Your task to perform on an android device: open a new tab in the chrome app Image 0: 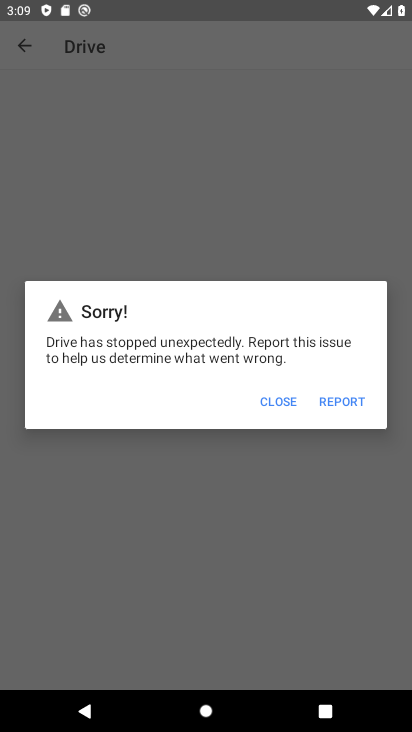
Step 0: press back button
Your task to perform on an android device: open a new tab in the chrome app Image 1: 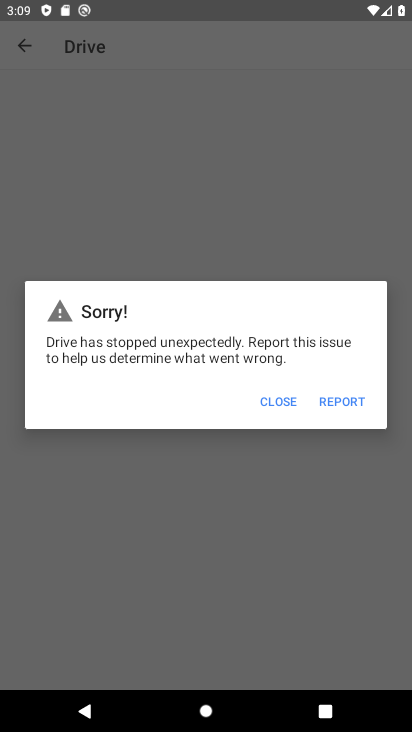
Step 1: press back button
Your task to perform on an android device: open a new tab in the chrome app Image 2: 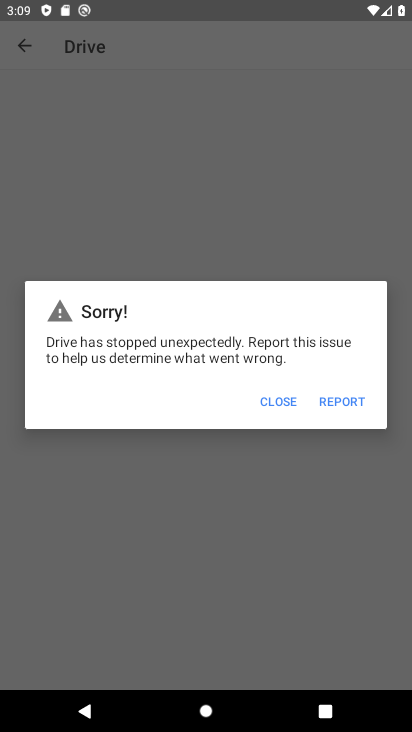
Step 2: press home button
Your task to perform on an android device: open a new tab in the chrome app Image 3: 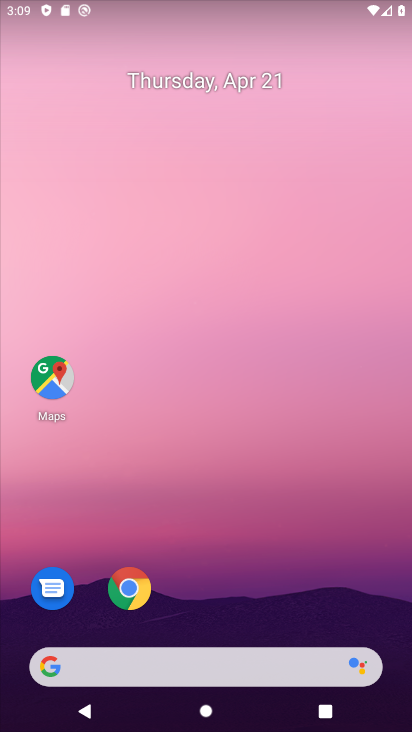
Step 3: click (123, 596)
Your task to perform on an android device: open a new tab in the chrome app Image 4: 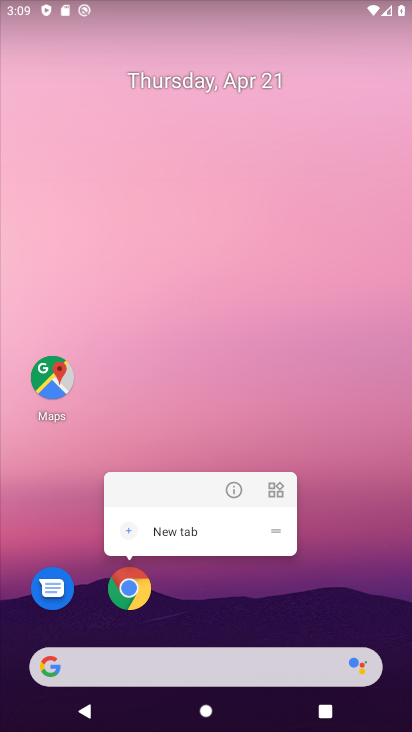
Step 4: click (123, 596)
Your task to perform on an android device: open a new tab in the chrome app Image 5: 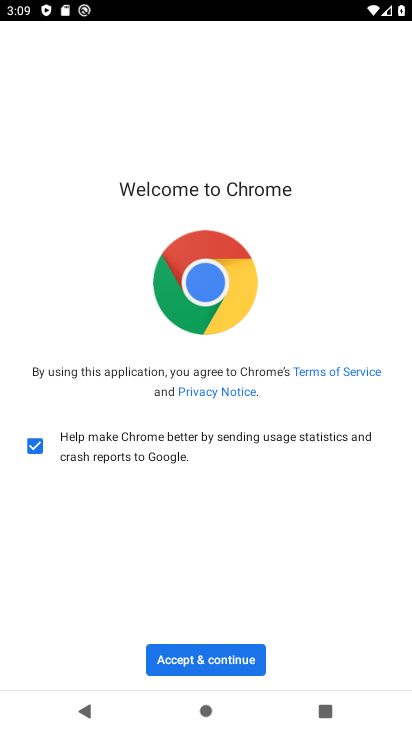
Step 5: click (180, 660)
Your task to perform on an android device: open a new tab in the chrome app Image 6: 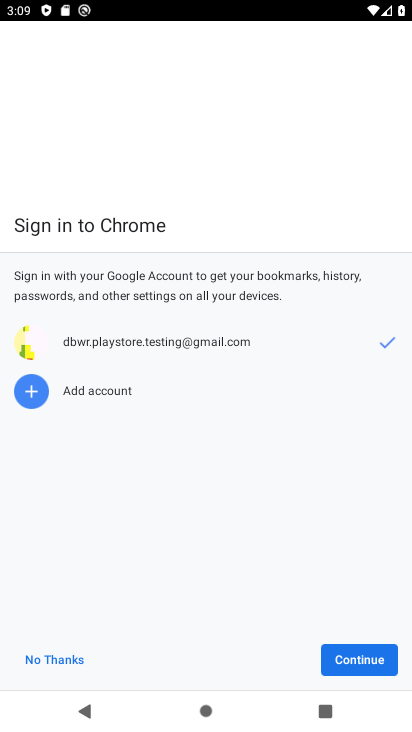
Step 6: click (344, 657)
Your task to perform on an android device: open a new tab in the chrome app Image 7: 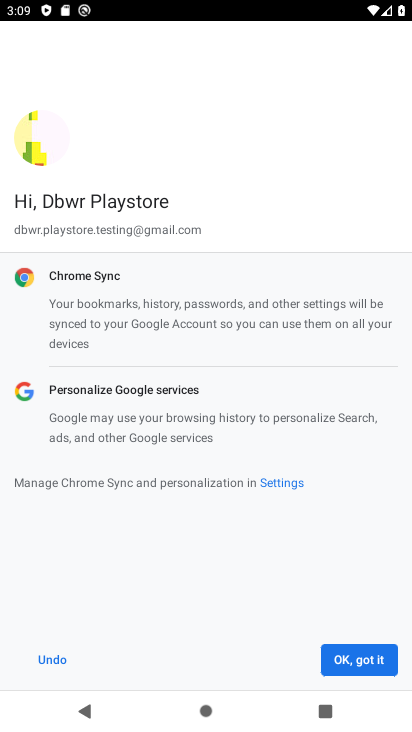
Step 7: click (344, 657)
Your task to perform on an android device: open a new tab in the chrome app Image 8: 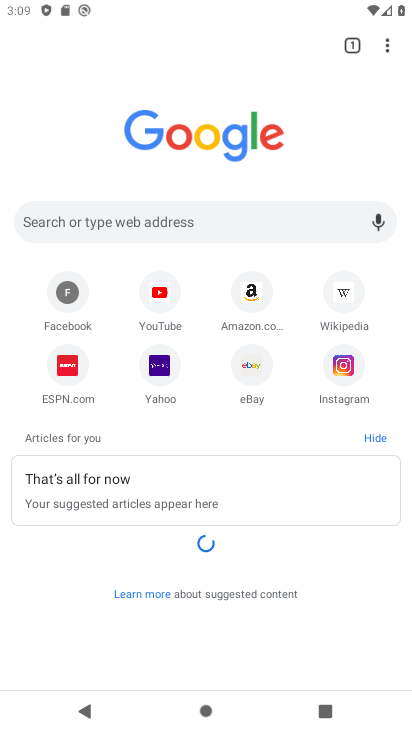
Step 8: click (385, 44)
Your task to perform on an android device: open a new tab in the chrome app Image 9: 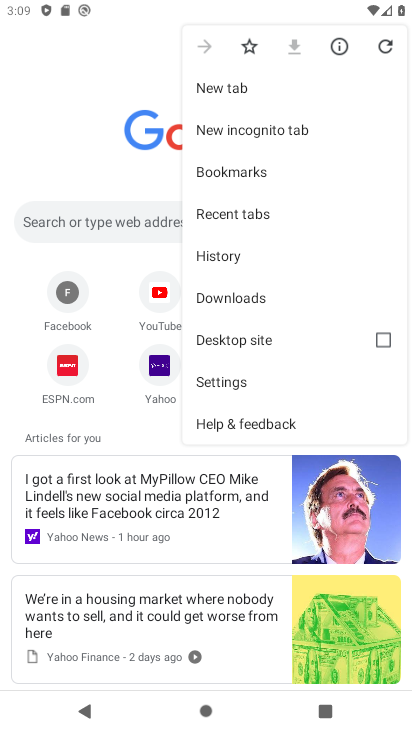
Step 9: click (256, 90)
Your task to perform on an android device: open a new tab in the chrome app Image 10: 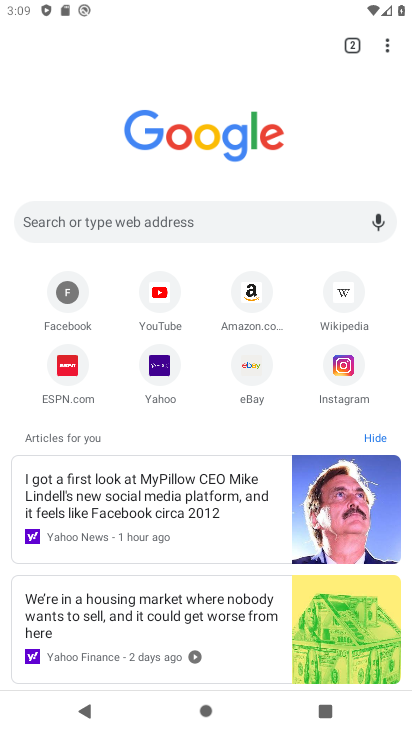
Step 10: task complete